Your task to perform on an android device: Open Chrome and go to settings Image 0: 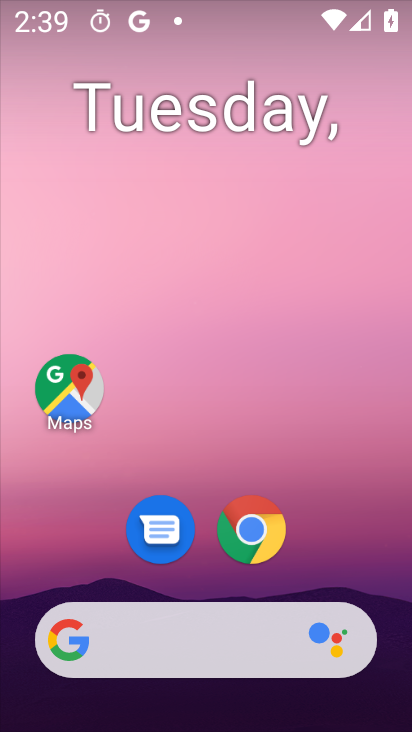
Step 0: click (257, 533)
Your task to perform on an android device: Open Chrome and go to settings Image 1: 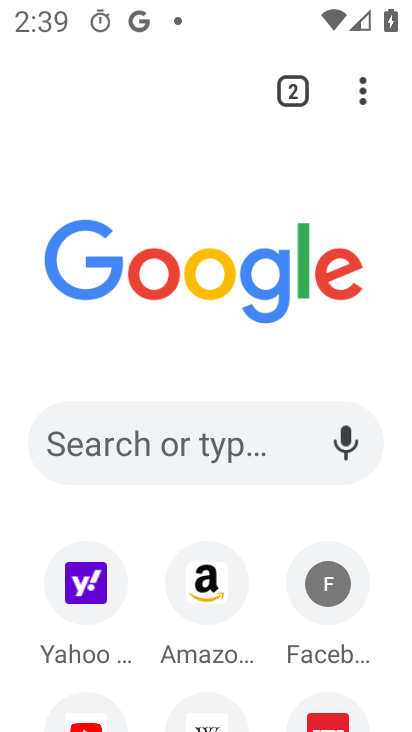
Step 1: click (359, 85)
Your task to perform on an android device: Open Chrome and go to settings Image 2: 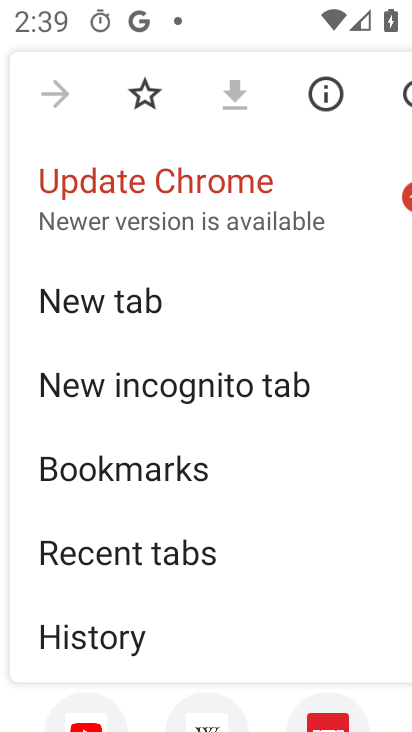
Step 2: drag from (325, 617) to (322, 252)
Your task to perform on an android device: Open Chrome and go to settings Image 3: 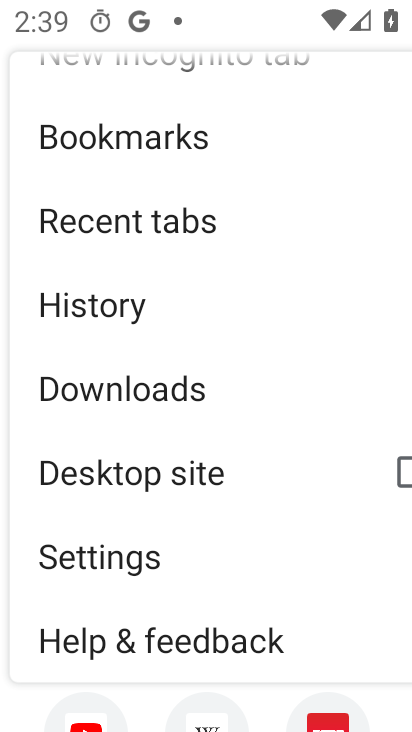
Step 3: click (112, 555)
Your task to perform on an android device: Open Chrome and go to settings Image 4: 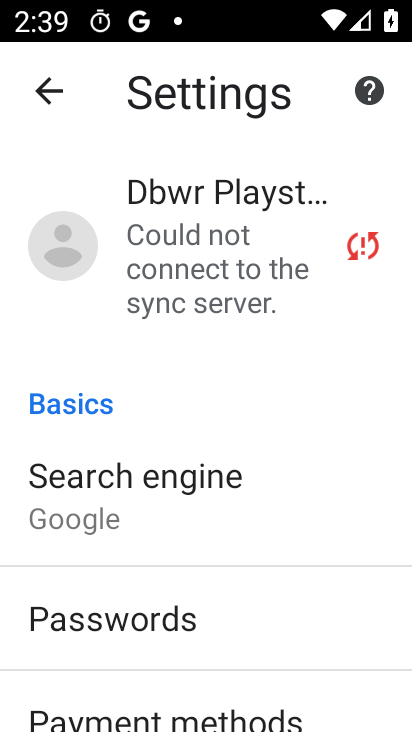
Step 4: task complete